Your task to perform on an android device: uninstall "Adobe Express: Graphic Design" Image 0: 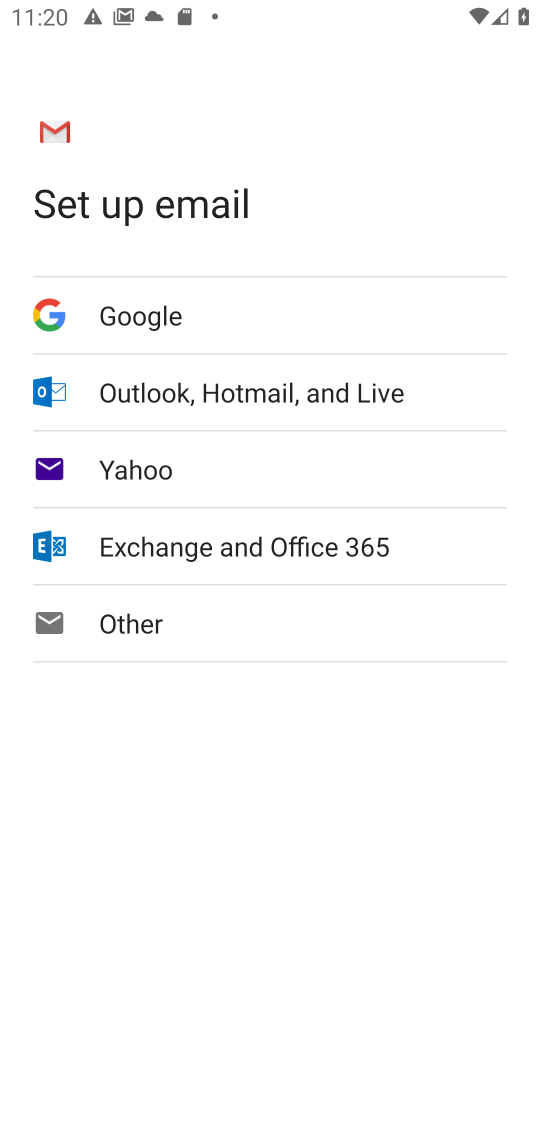
Step 0: press home button
Your task to perform on an android device: uninstall "Adobe Express: Graphic Design" Image 1: 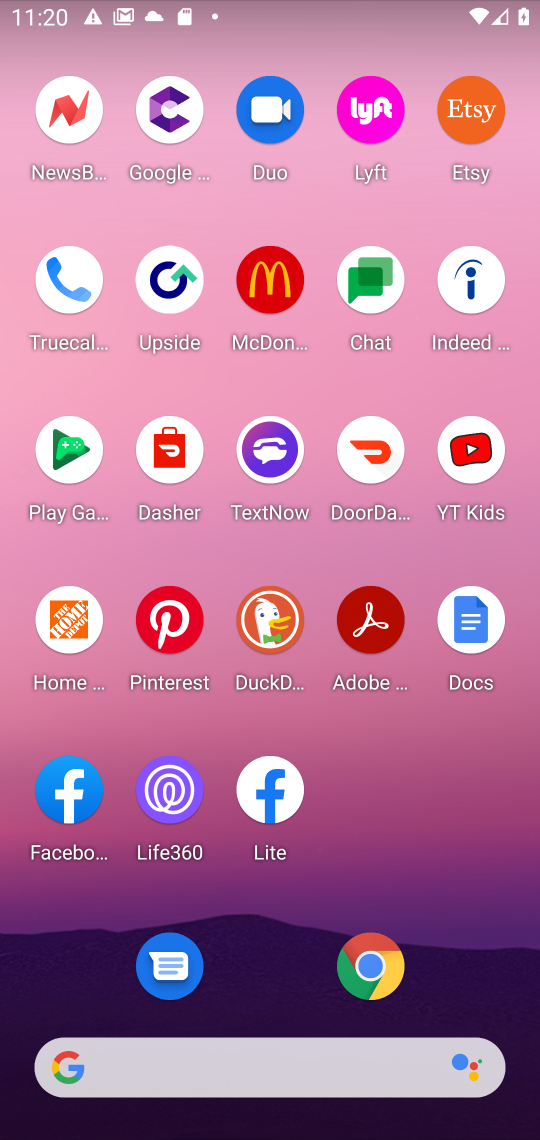
Step 1: drag from (281, 949) to (360, 2)
Your task to perform on an android device: uninstall "Adobe Express: Graphic Design" Image 2: 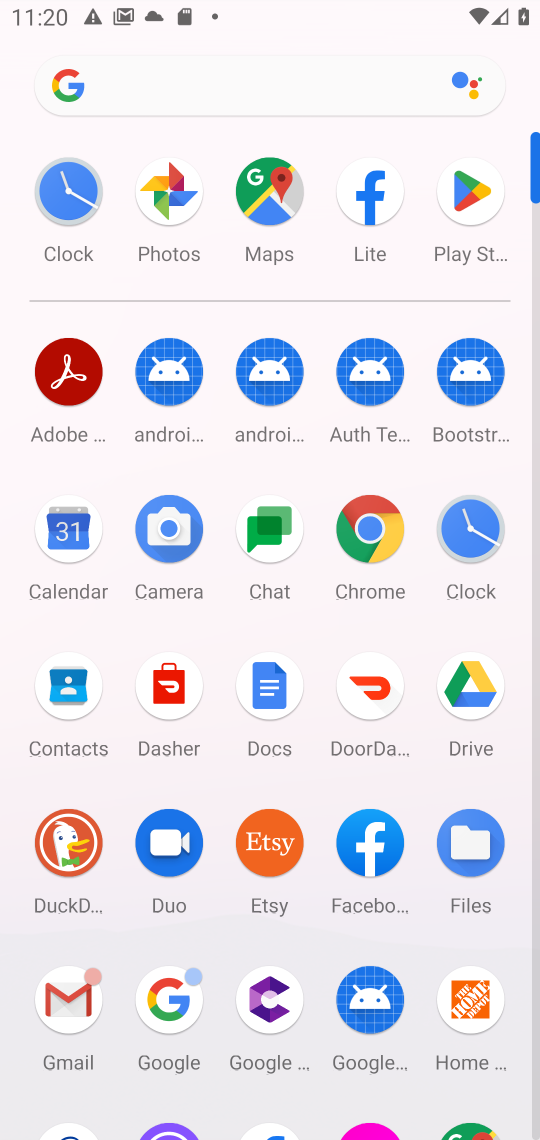
Step 2: click (479, 224)
Your task to perform on an android device: uninstall "Adobe Express: Graphic Design" Image 3: 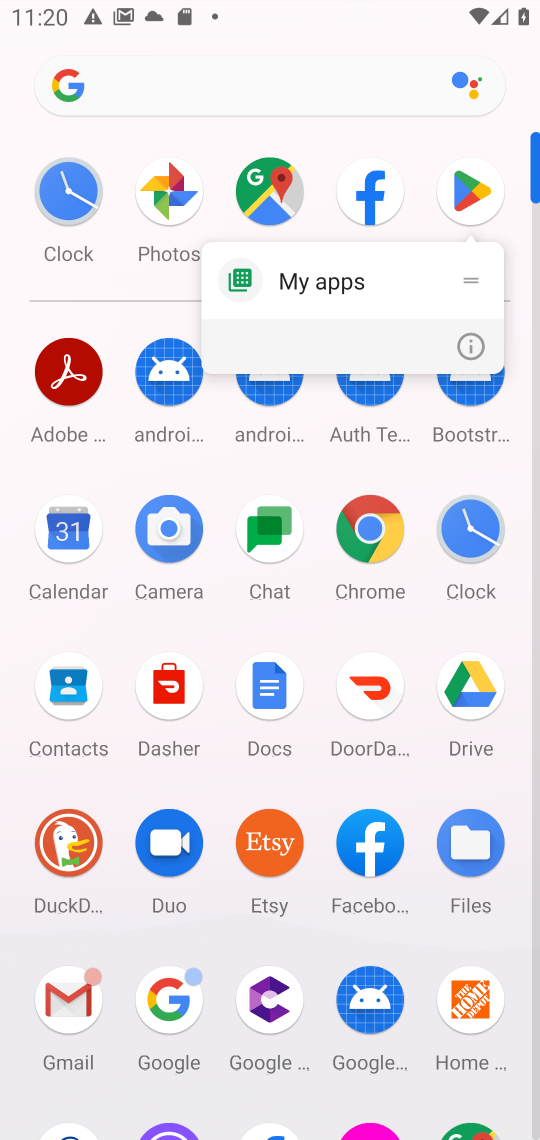
Step 3: click (503, 199)
Your task to perform on an android device: uninstall "Adobe Express: Graphic Design" Image 4: 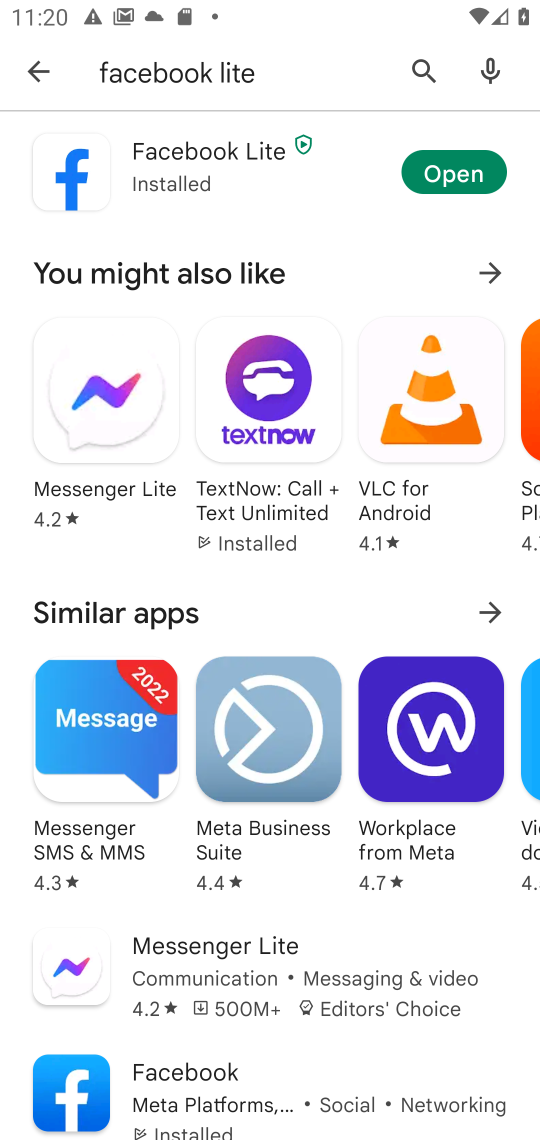
Step 4: click (308, 76)
Your task to perform on an android device: uninstall "Adobe Express: Graphic Design" Image 5: 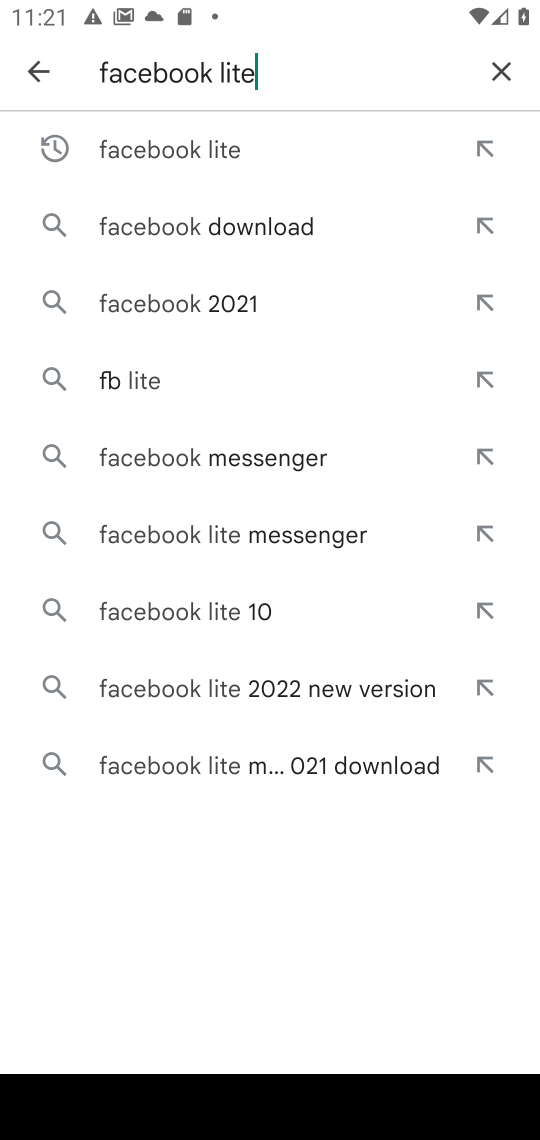
Step 5: click (494, 70)
Your task to perform on an android device: uninstall "Adobe Express: Graphic Design" Image 6: 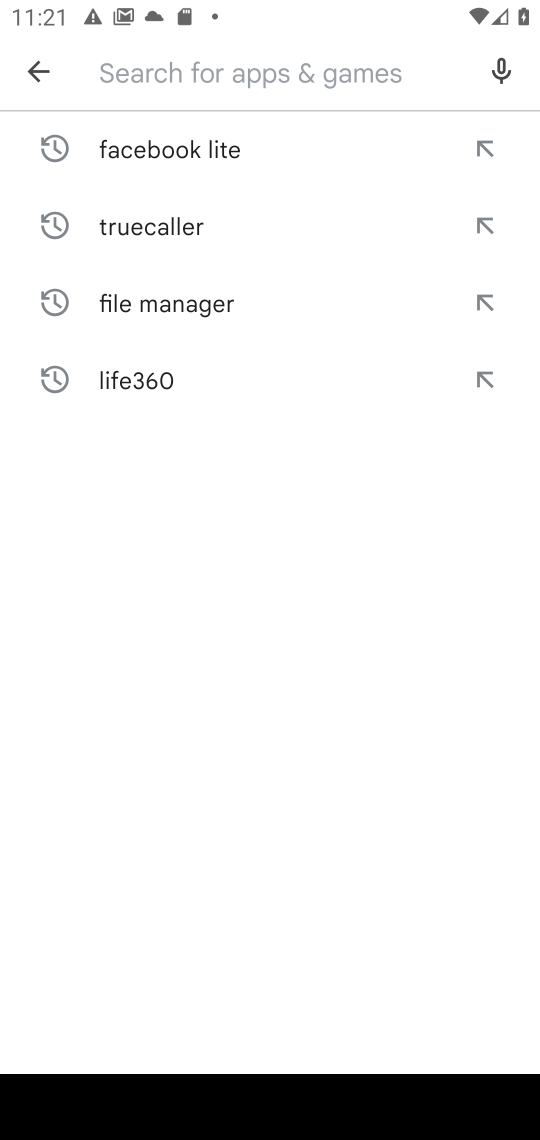
Step 6: type "Adobe Express"
Your task to perform on an android device: uninstall "Adobe Express: Graphic Design" Image 7: 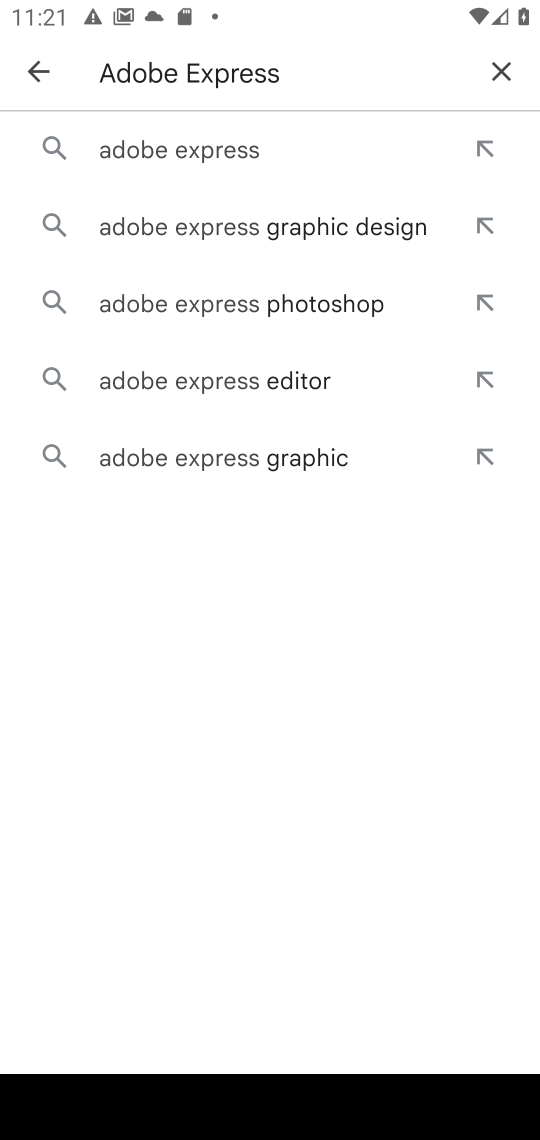
Step 7: click (226, 154)
Your task to perform on an android device: uninstall "Adobe Express: Graphic Design" Image 8: 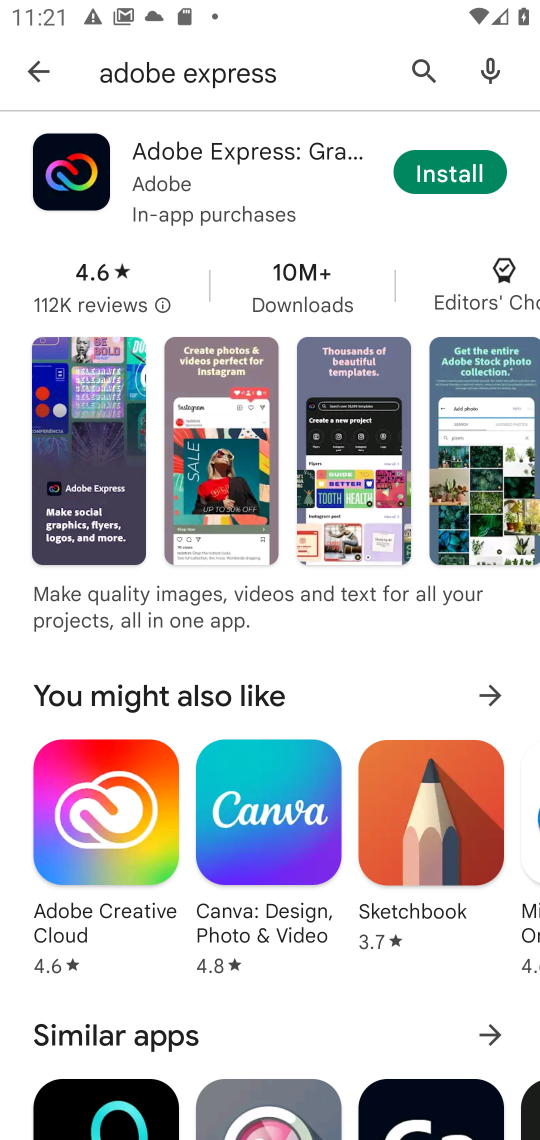
Step 8: task complete